Your task to perform on an android device: turn on the 24-hour format for clock Image 0: 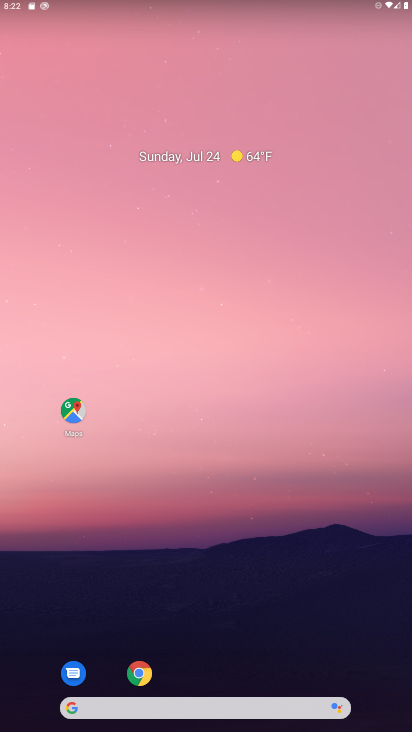
Step 0: drag from (311, 646) to (292, 354)
Your task to perform on an android device: turn on the 24-hour format for clock Image 1: 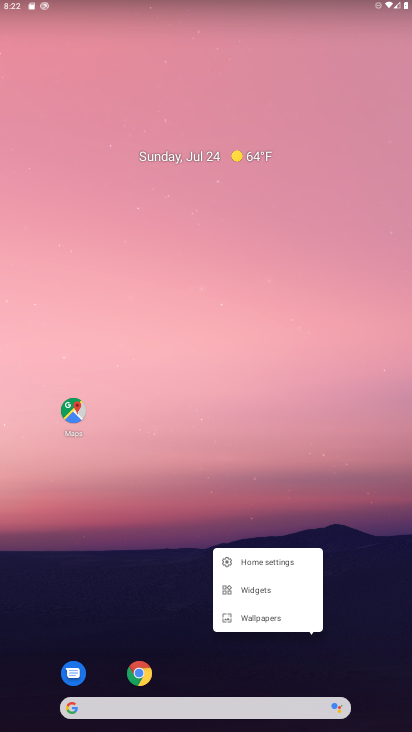
Step 1: click (363, 534)
Your task to perform on an android device: turn on the 24-hour format for clock Image 2: 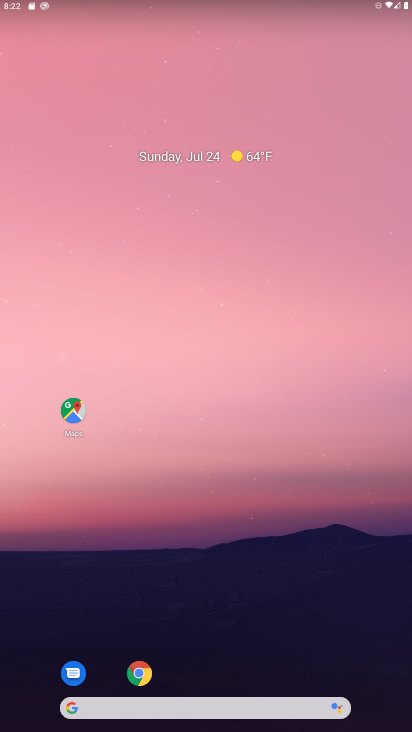
Step 2: drag from (245, 637) to (209, 288)
Your task to perform on an android device: turn on the 24-hour format for clock Image 3: 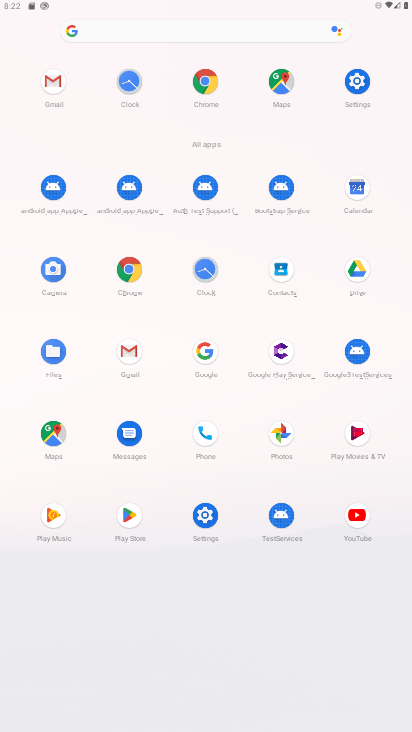
Step 3: click (208, 267)
Your task to perform on an android device: turn on the 24-hour format for clock Image 4: 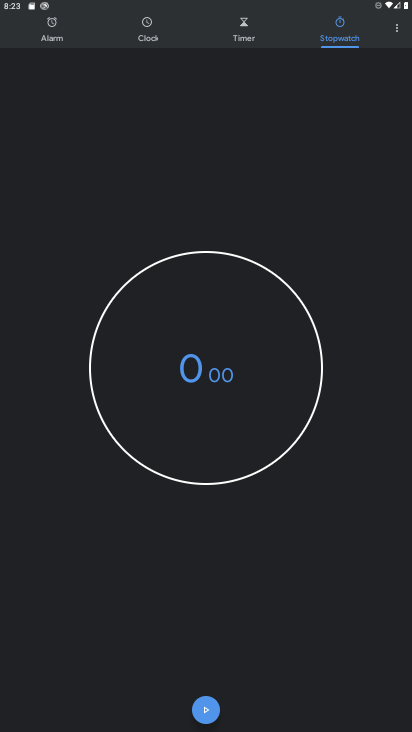
Step 4: click (398, 28)
Your task to perform on an android device: turn on the 24-hour format for clock Image 5: 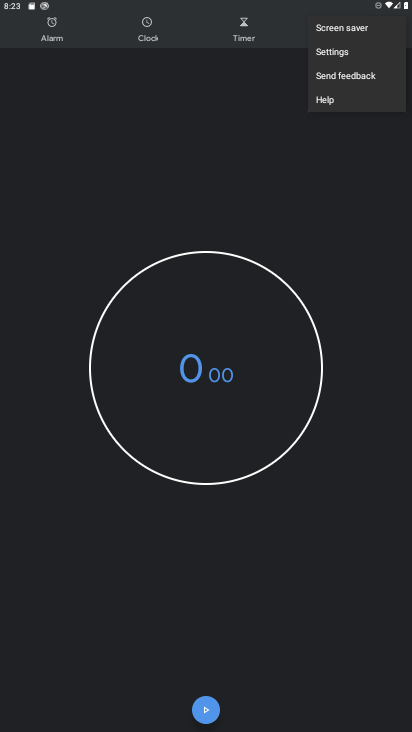
Step 5: click (344, 50)
Your task to perform on an android device: turn on the 24-hour format for clock Image 6: 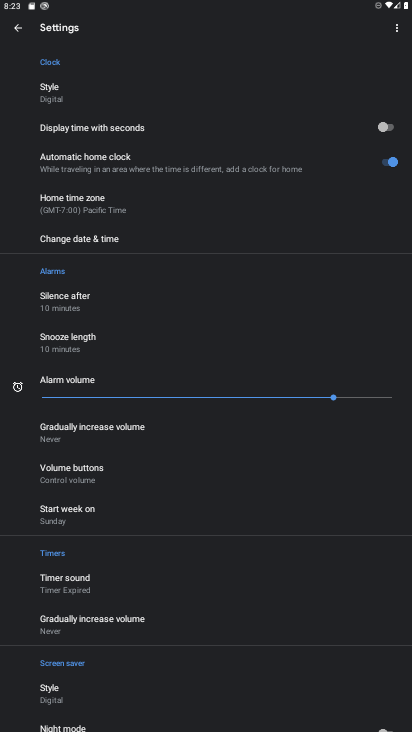
Step 6: click (124, 236)
Your task to perform on an android device: turn on the 24-hour format for clock Image 7: 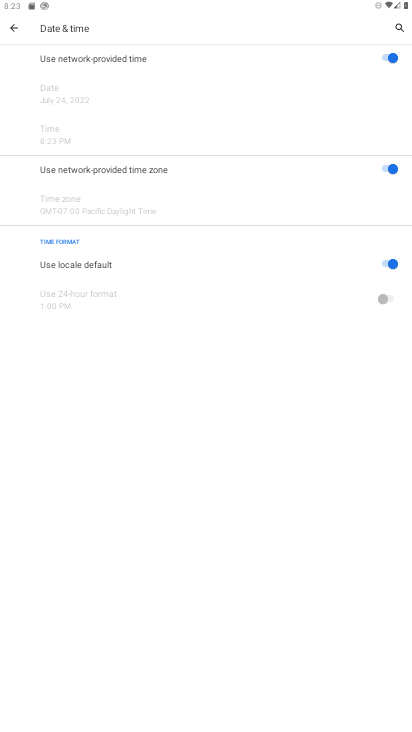
Step 7: click (391, 262)
Your task to perform on an android device: turn on the 24-hour format for clock Image 8: 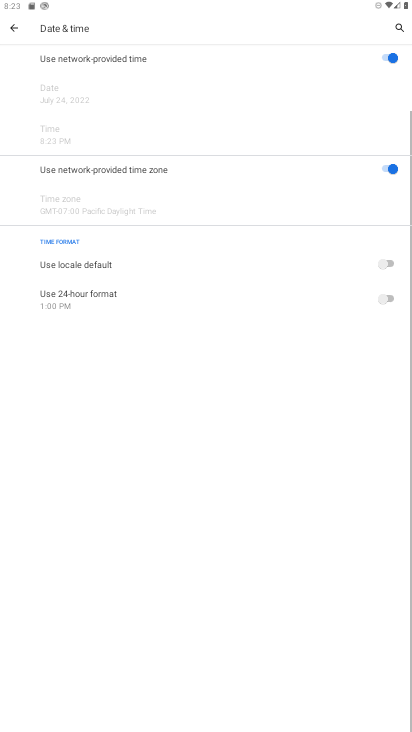
Step 8: click (385, 296)
Your task to perform on an android device: turn on the 24-hour format for clock Image 9: 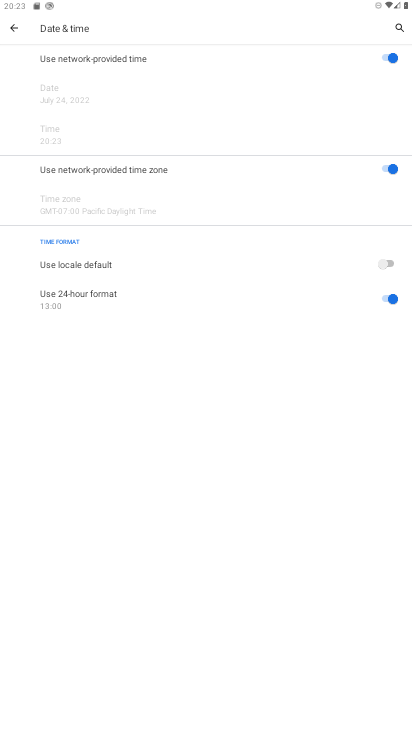
Step 9: task complete